Your task to perform on an android device: turn notification dots on Image 0: 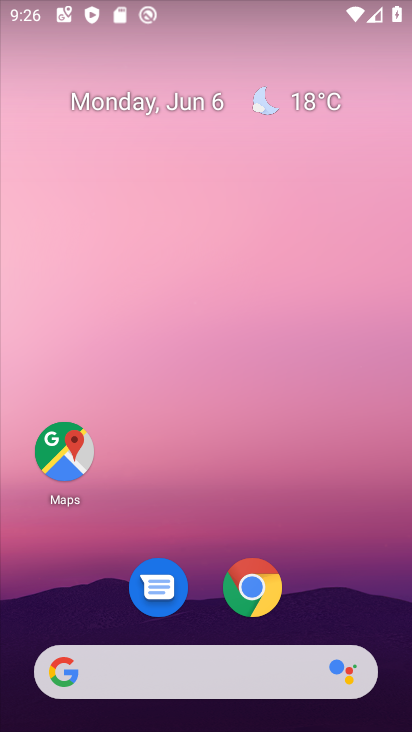
Step 0: drag from (305, 479) to (298, 150)
Your task to perform on an android device: turn notification dots on Image 1: 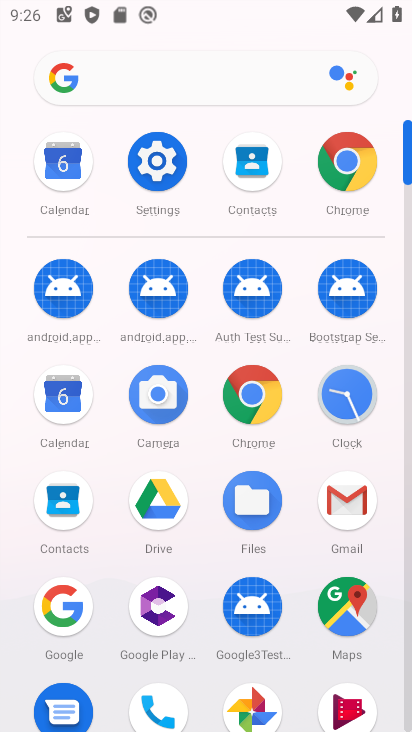
Step 1: click (138, 145)
Your task to perform on an android device: turn notification dots on Image 2: 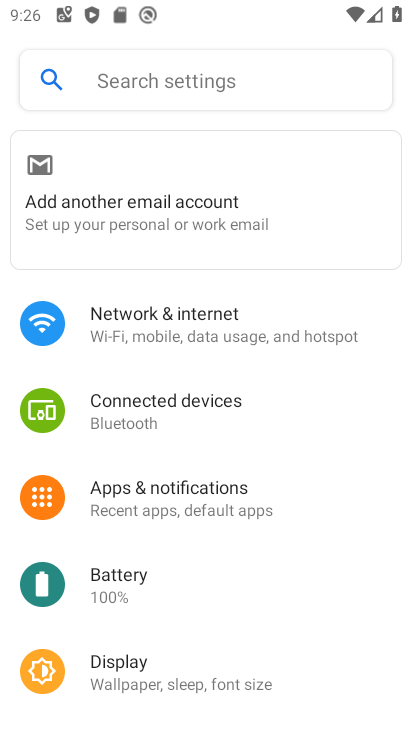
Step 2: click (195, 499)
Your task to perform on an android device: turn notification dots on Image 3: 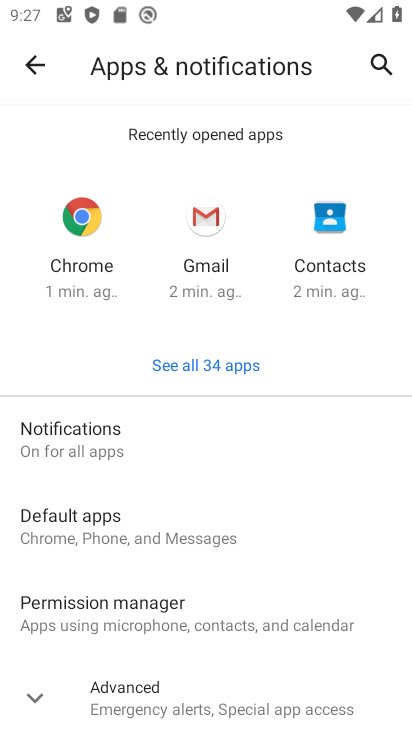
Step 3: click (115, 450)
Your task to perform on an android device: turn notification dots on Image 4: 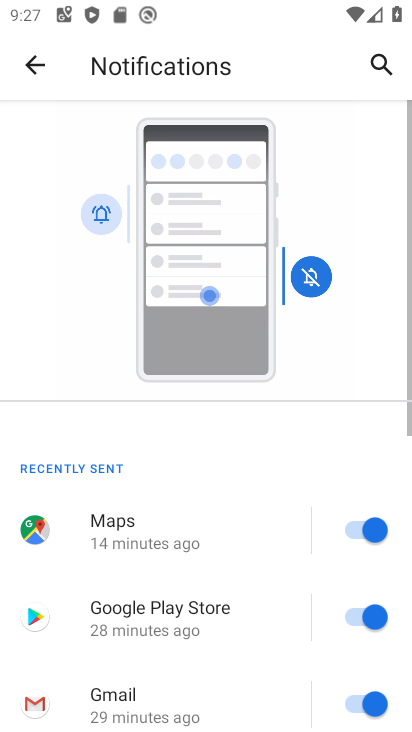
Step 4: drag from (236, 604) to (269, 91)
Your task to perform on an android device: turn notification dots on Image 5: 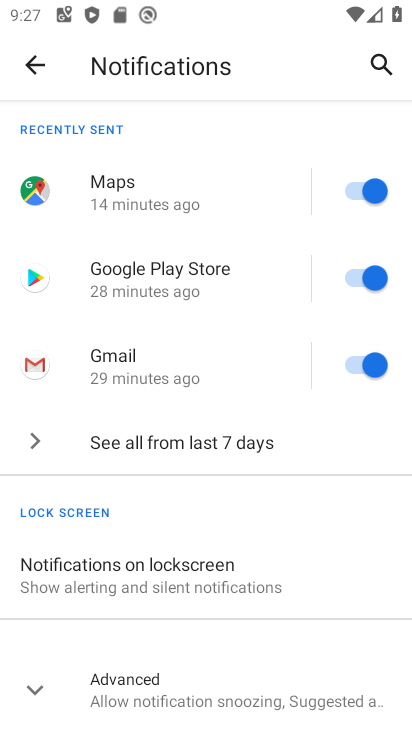
Step 5: click (144, 677)
Your task to perform on an android device: turn notification dots on Image 6: 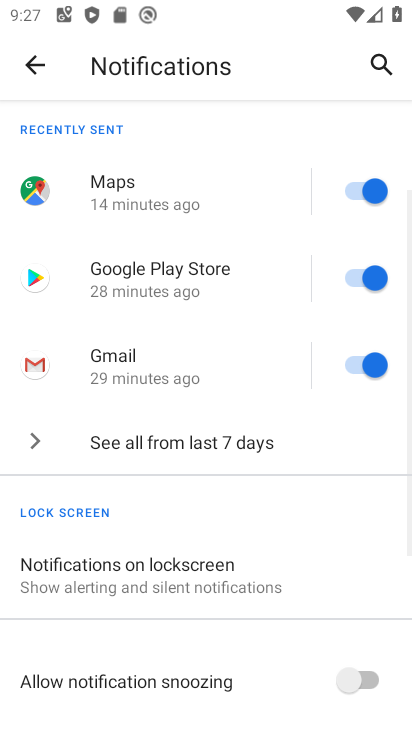
Step 6: task complete